Your task to perform on an android device: Search for seafood restaurants on Google Maps Image 0: 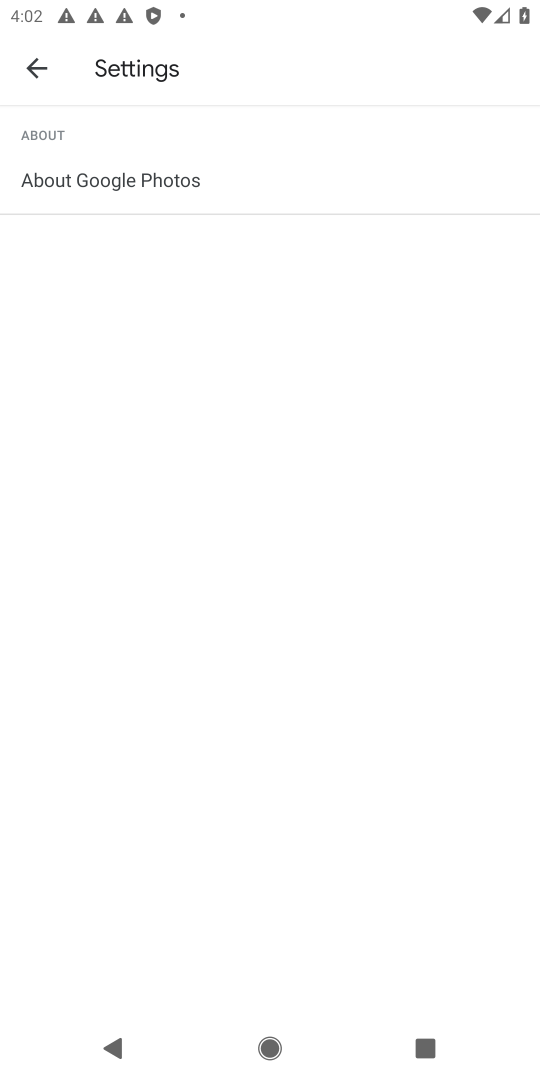
Step 0: press home button
Your task to perform on an android device: Search for seafood restaurants on Google Maps Image 1: 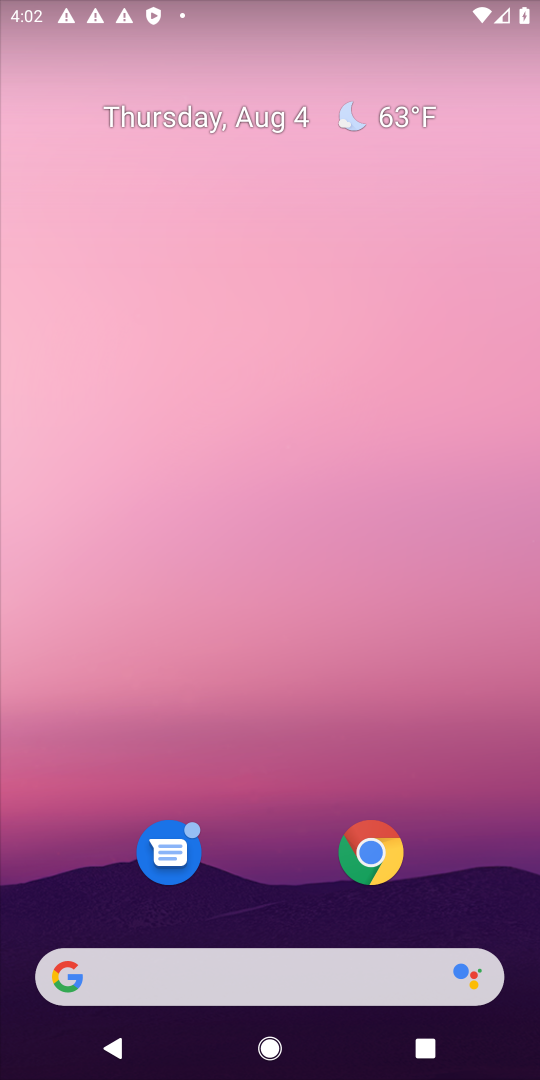
Step 1: drag from (294, 935) to (254, 200)
Your task to perform on an android device: Search for seafood restaurants on Google Maps Image 2: 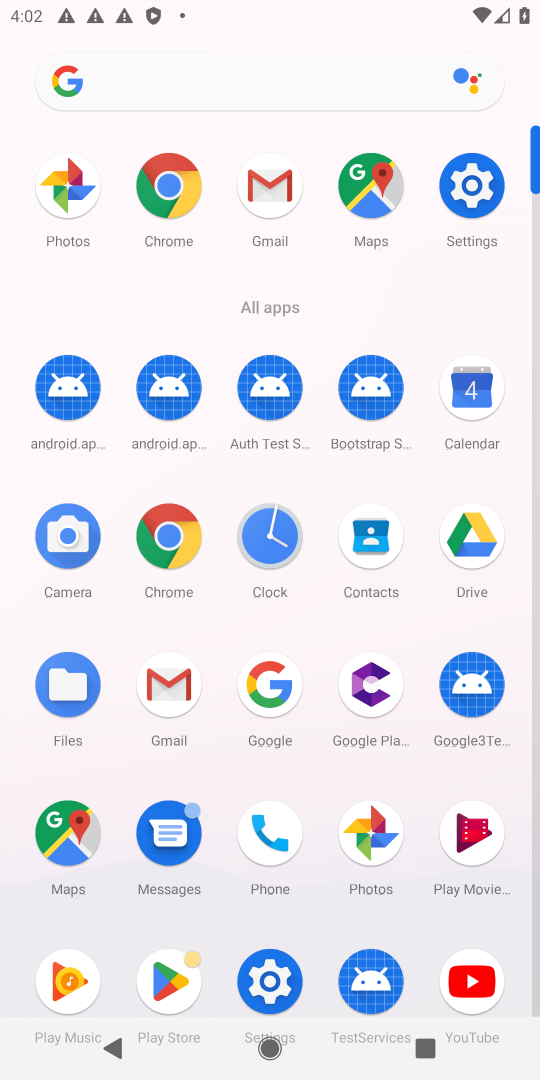
Step 2: click (54, 849)
Your task to perform on an android device: Search for seafood restaurants on Google Maps Image 3: 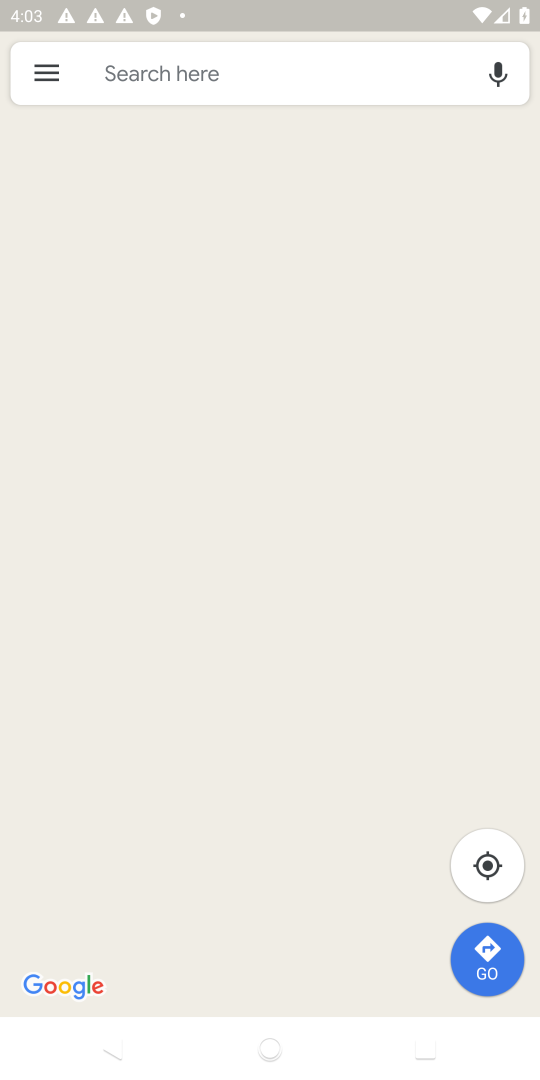
Step 3: click (291, 74)
Your task to perform on an android device: Search for seafood restaurants on Google Maps Image 4: 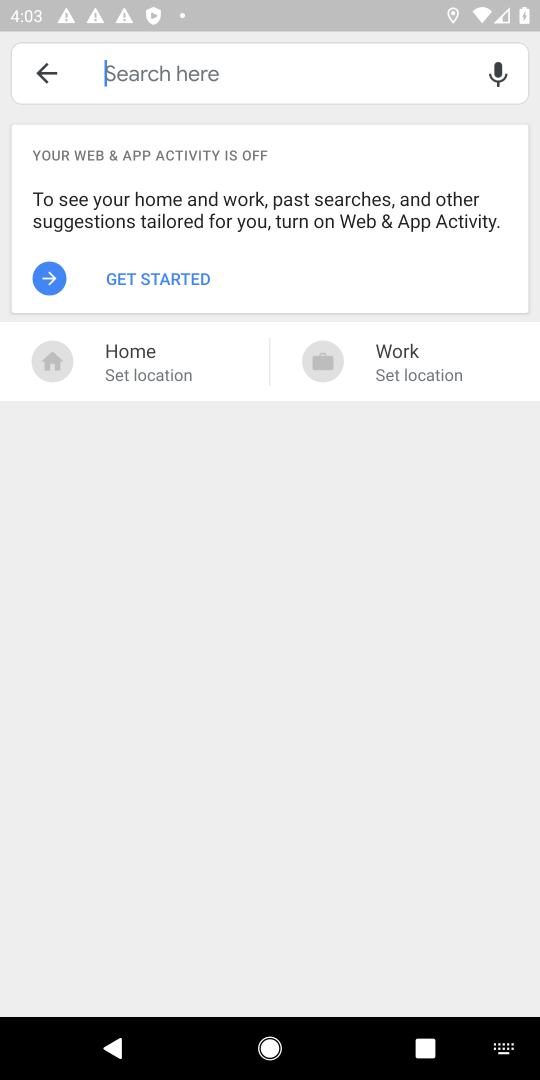
Step 4: type "seafood restaurants"
Your task to perform on an android device: Search for seafood restaurants on Google Maps Image 5: 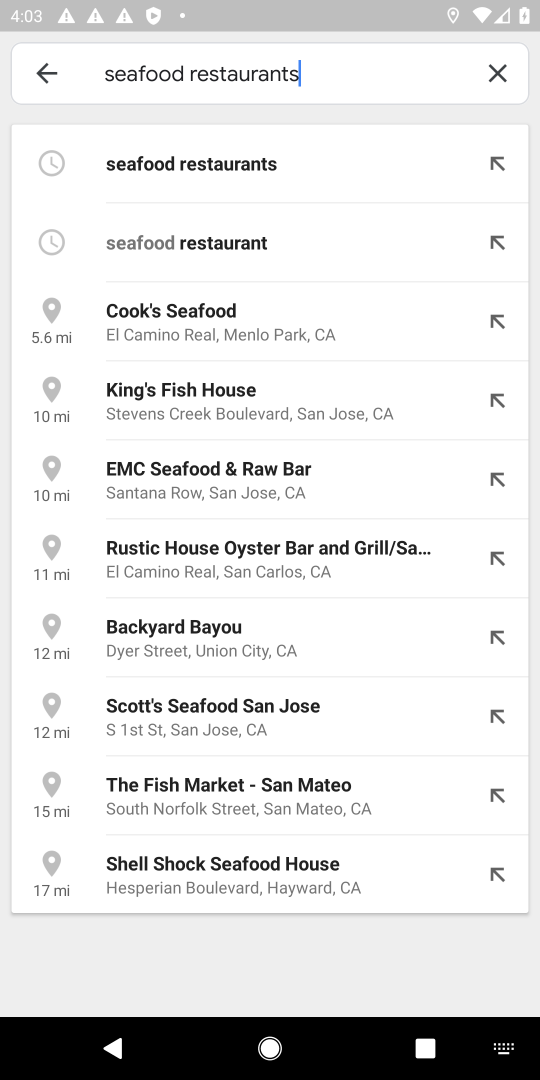
Step 5: click (191, 165)
Your task to perform on an android device: Search for seafood restaurants on Google Maps Image 6: 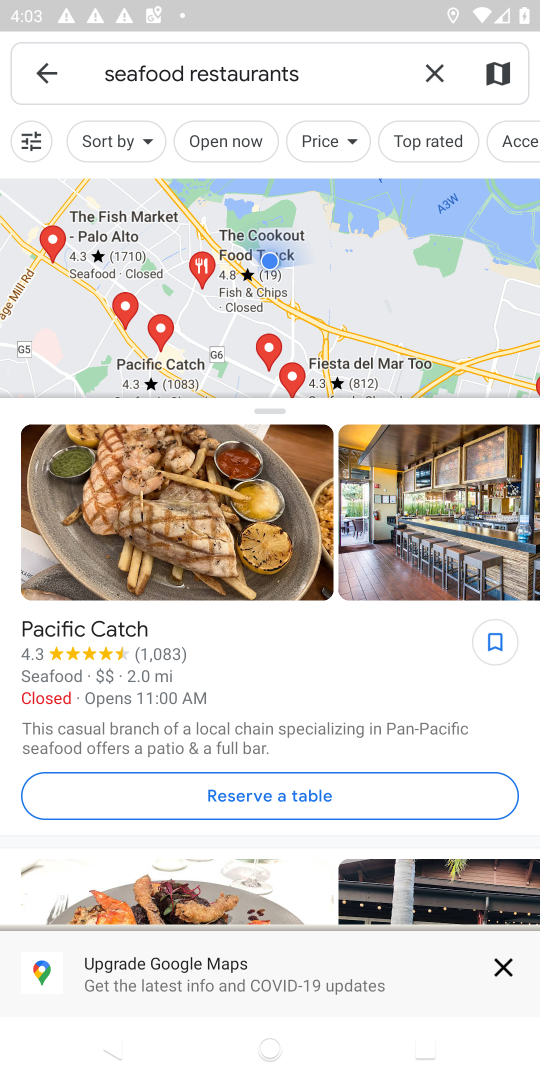
Step 6: task complete